Your task to perform on an android device: turn off notifications settings in the gmail app Image 0: 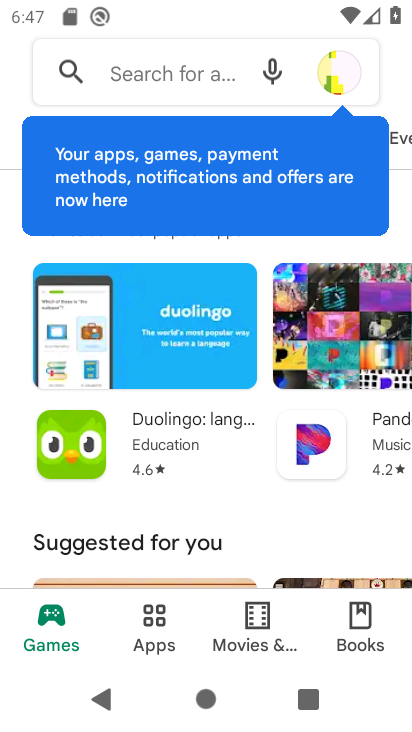
Step 0: press home button
Your task to perform on an android device: turn off notifications settings in the gmail app Image 1: 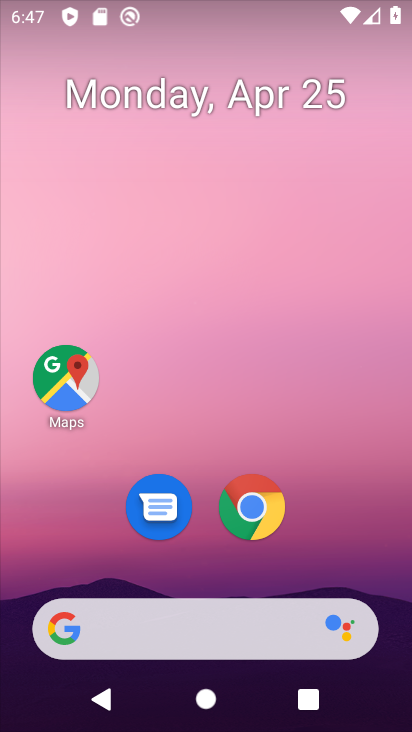
Step 1: click (254, 46)
Your task to perform on an android device: turn off notifications settings in the gmail app Image 2: 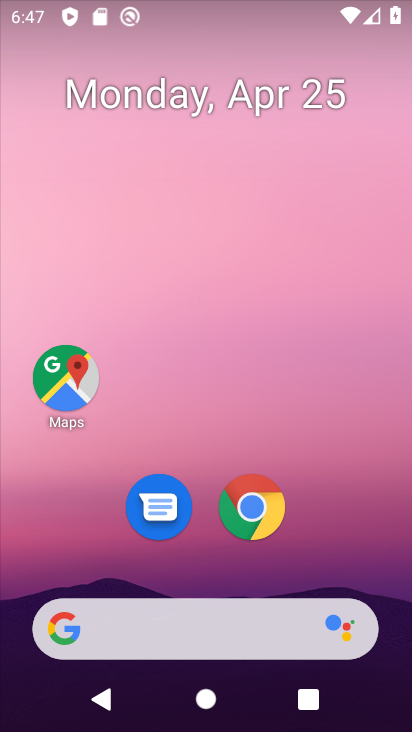
Step 2: drag from (297, 282) to (254, 172)
Your task to perform on an android device: turn off notifications settings in the gmail app Image 3: 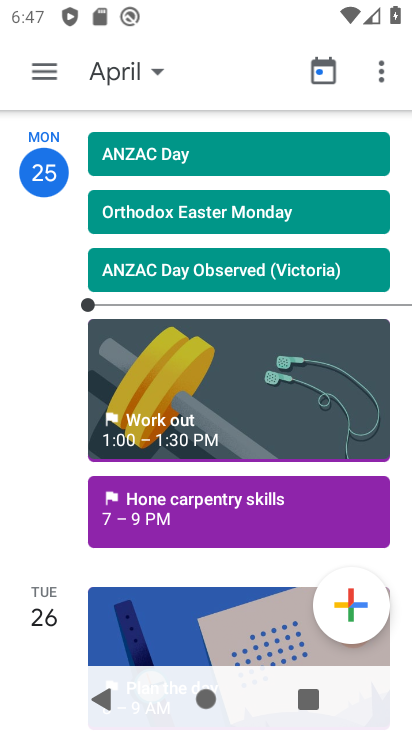
Step 3: press home button
Your task to perform on an android device: turn off notifications settings in the gmail app Image 4: 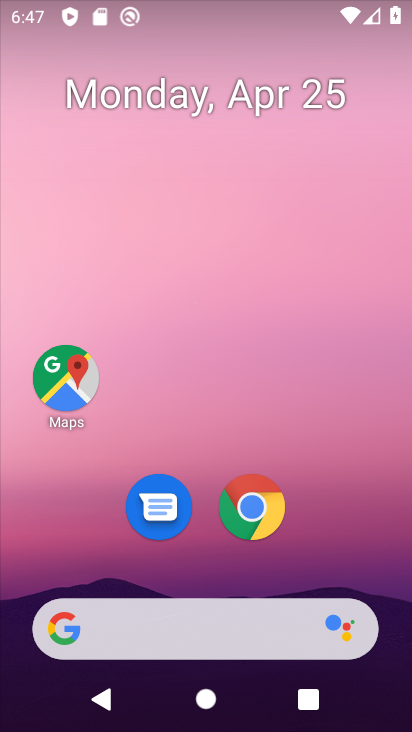
Step 4: drag from (344, 532) to (226, 56)
Your task to perform on an android device: turn off notifications settings in the gmail app Image 5: 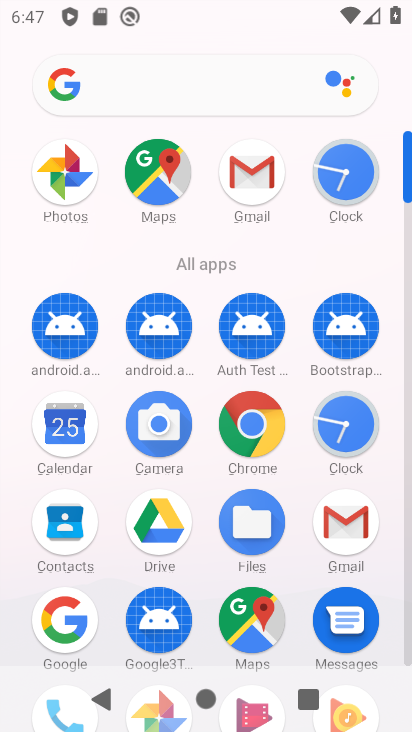
Step 5: click (249, 181)
Your task to perform on an android device: turn off notifications settings in the gmail app Image 6: 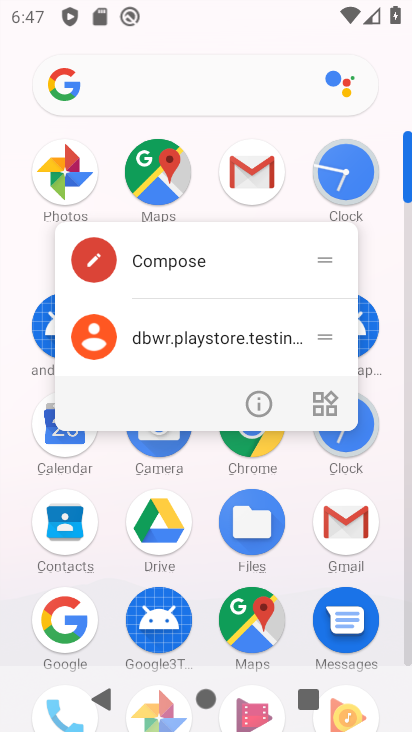
Step 6: click (256, 415)
Your task to perform on an android device: turn off notifications settings in the gmail app Image 7: 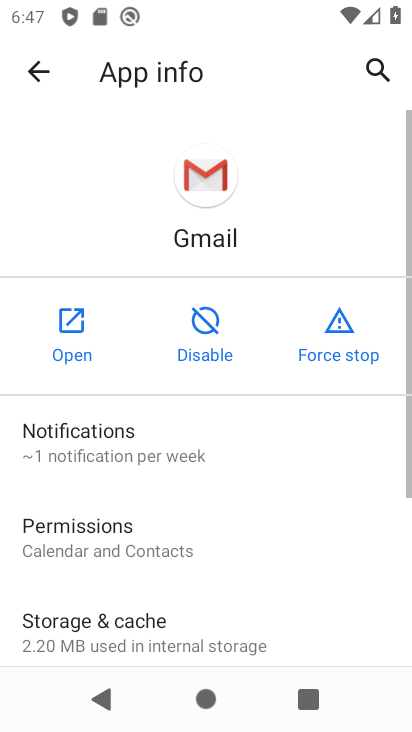
Step 7: click (160, 449)
Your task to perform on an android device: turn off notifications settings in the gmail app Image 8: 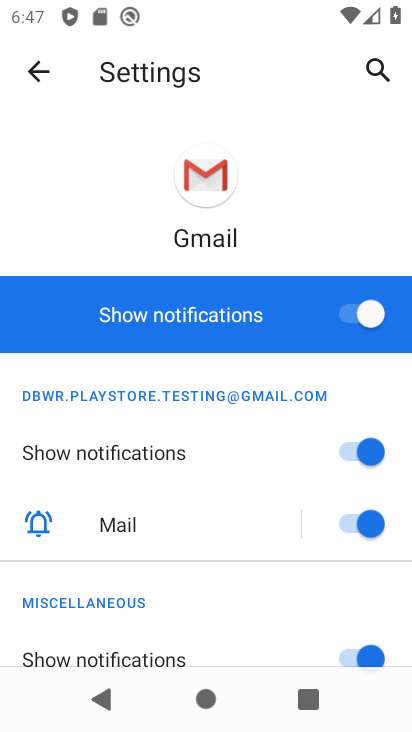
Step 8: click (340, 317)
Your task to perform on an android device: turn off notifications settings in the gmail app Image 9: 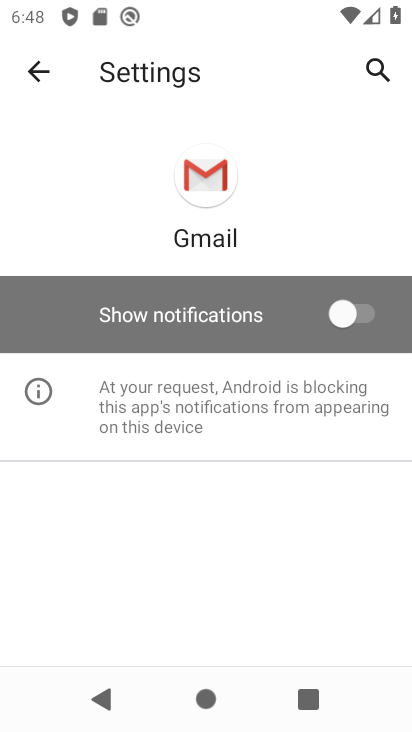
Step 9: task complete